Your task to perform on an android device: What's the weather going to be this weekend? Image 0: 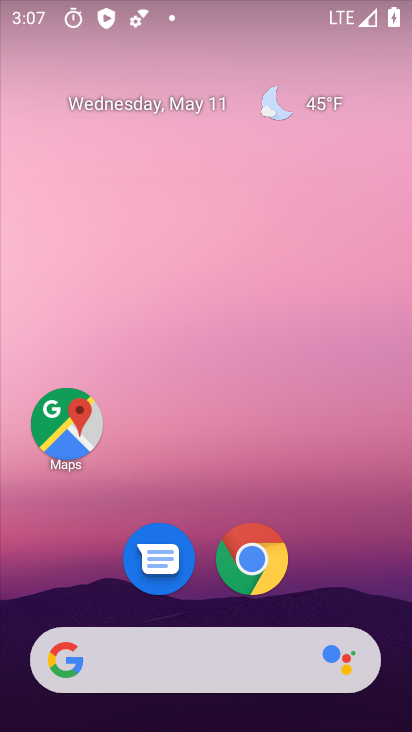
Step 0: click (320, 106)
Your task to perform on an android device: What's the weather going to be this weekend? Image 1: 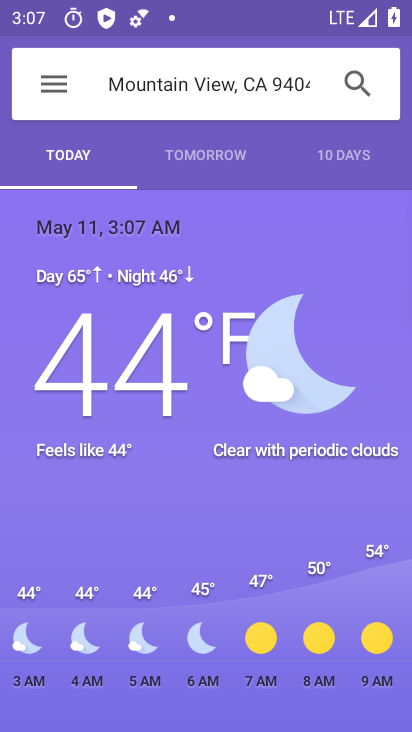
Step 1: click (338, 146)
Your task to perform on an android device: What's the weather going to be this weekend? Image 2: 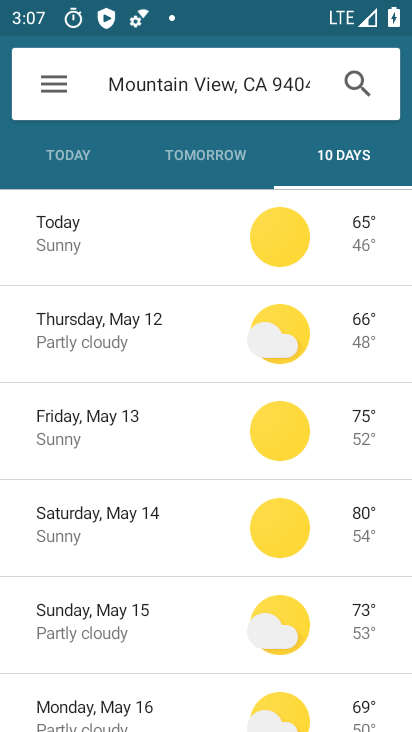
Step 2: task complete